Your task to perform on an android device: empty trash in google photos Image 0: 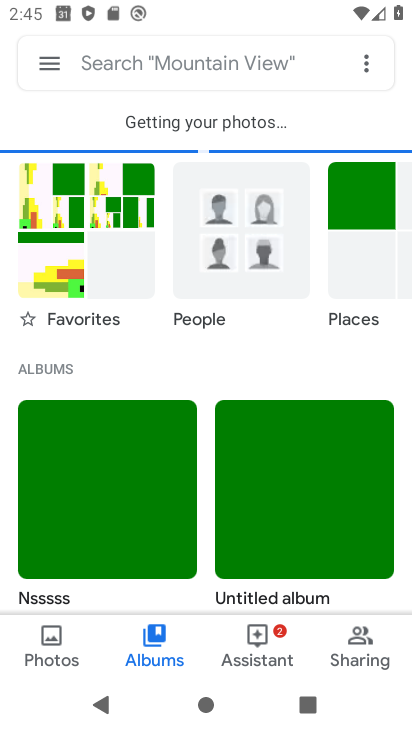
Step 0: press home button
Your task to perform on an android device: empty trash in google photos Image 1: 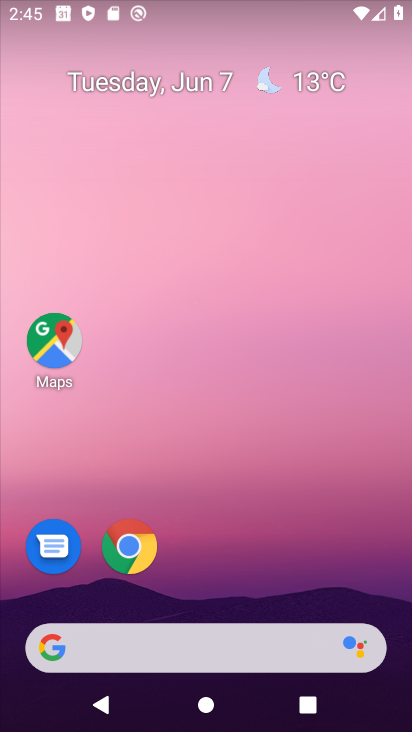
Step 1: drag from (185, 581) to (248, 190)
Your task to perform on an android device: empty trash in google photos Image 2: 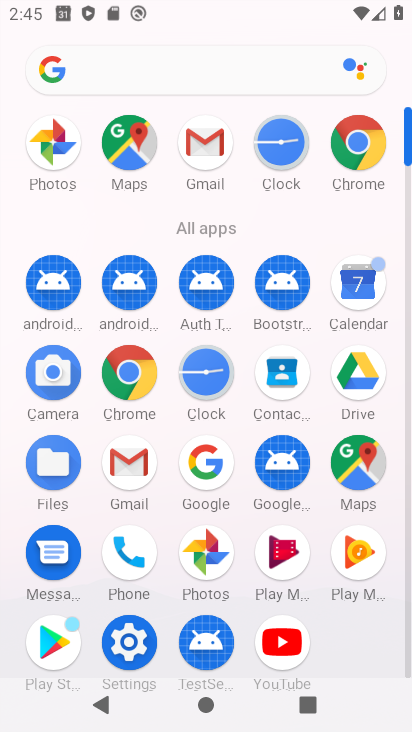
Step 2: click (217, 548)
Your task to perform on an android device: empty trash in google photos Image 3: 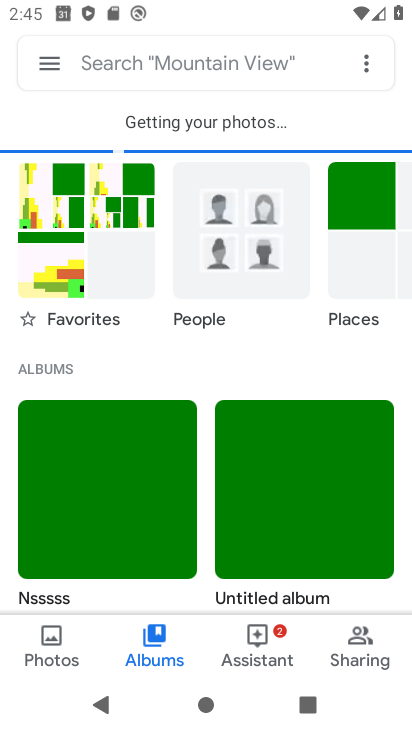
Step 3: click (36, 59)
Your task to perform on an android device: empty trash in google photos Image 4: 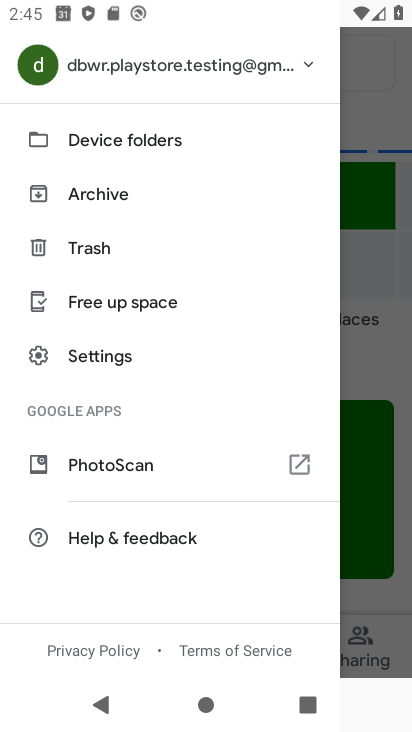
Step 4: click (100, 252)
Your task to perform on an android device: empty trash in google photos Image 5: 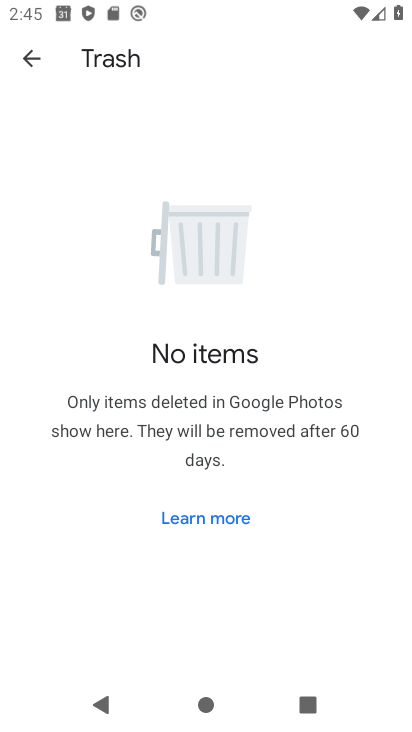
Step 5: task complete